Your task to perform on an android device: turn vacation reply on in the gmail app Image 0: 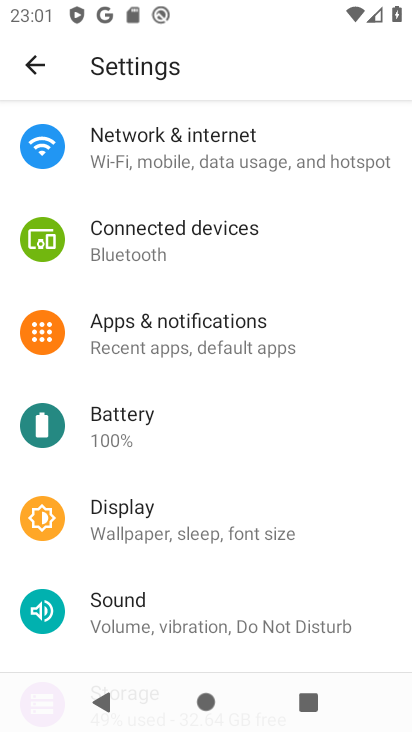
Step 0: press back button
Your task to perform on an android device: turn vacation reply on in the gmail app Image 1: 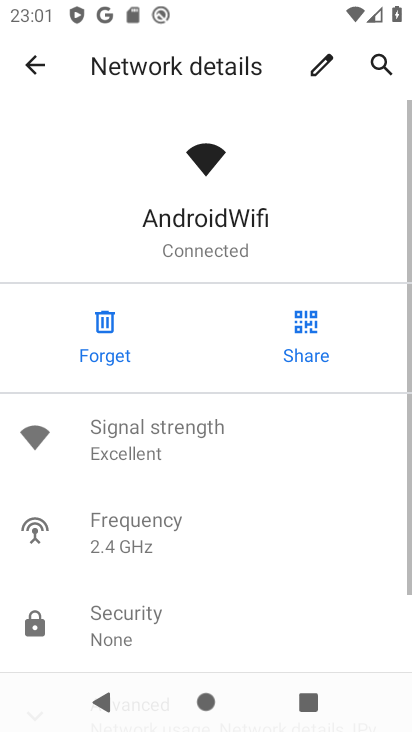
Step 1: press back button
Your task to perform on an android device: turn vacation reply on in the gmail app Image 2: 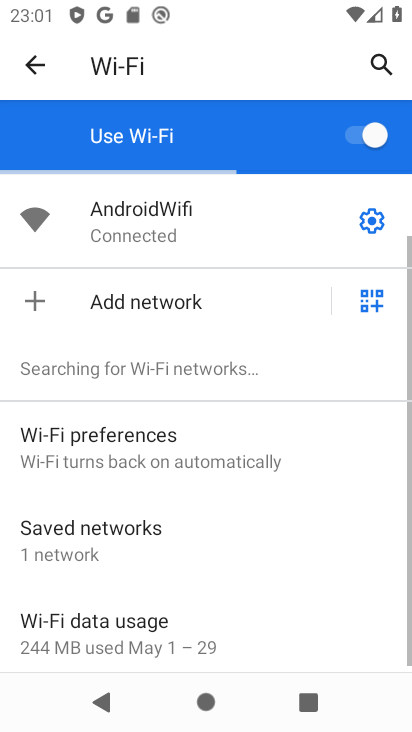
Step 2: press back button
Your task to perform on an android device: turn vacation reply on in the gmail app Image 3: 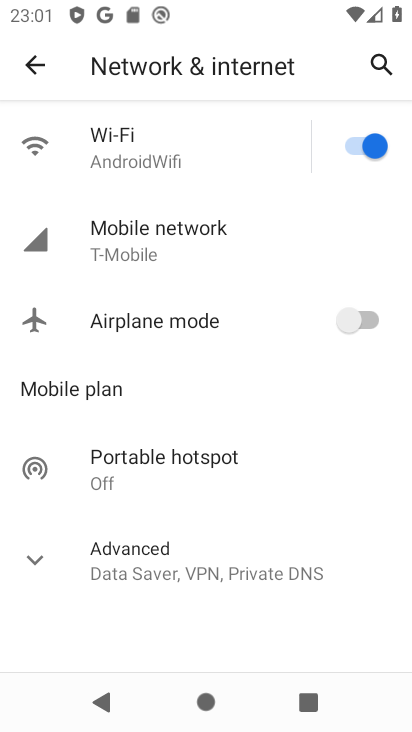
Step 3: press back button
Your task to perform on an android device: turn vacation reply on in the gmail app Image 4: 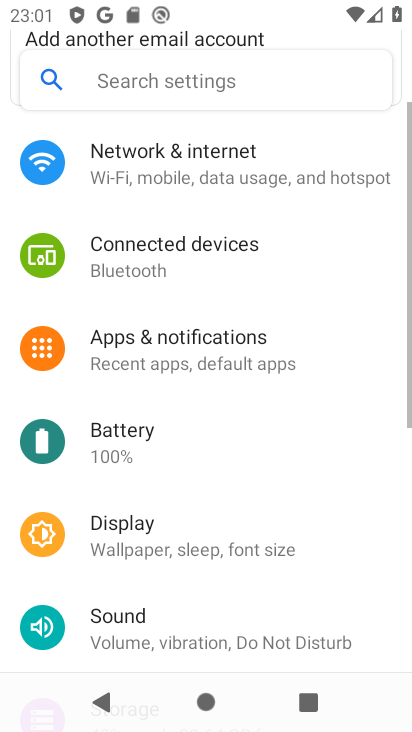
Step 4: press back button
Your task to perform on an android device: turn vacation reply on in the gmail app Image 5: 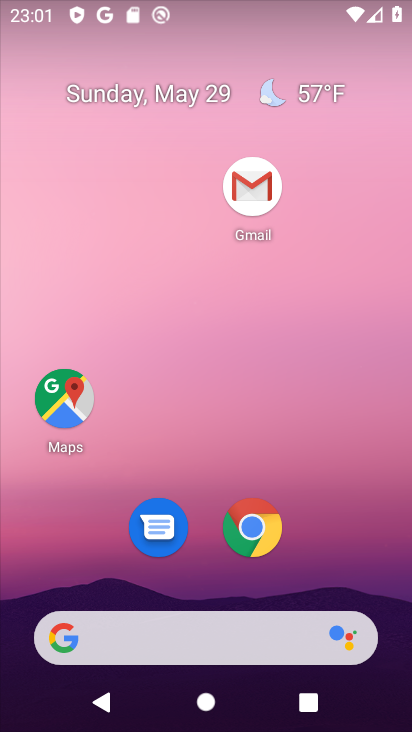
Step 5: click (253, 185)
Your task to perform on an android device: turn vacation reply on in the gmail app Image 6: 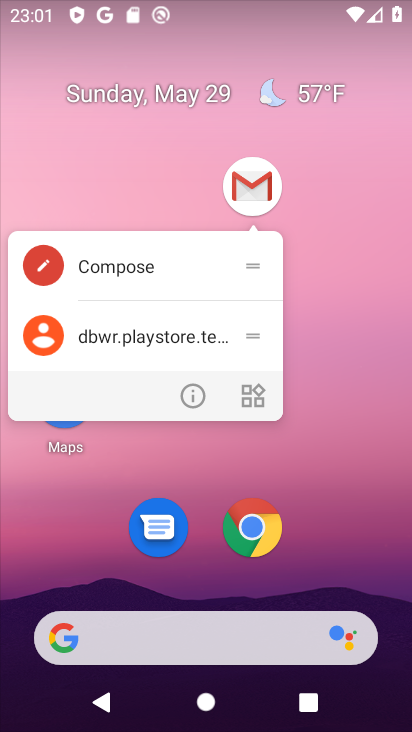
Step 6: click (253, 185)
Your task to perform on an android device: turn vacation reply on in the gmail app Image 7: 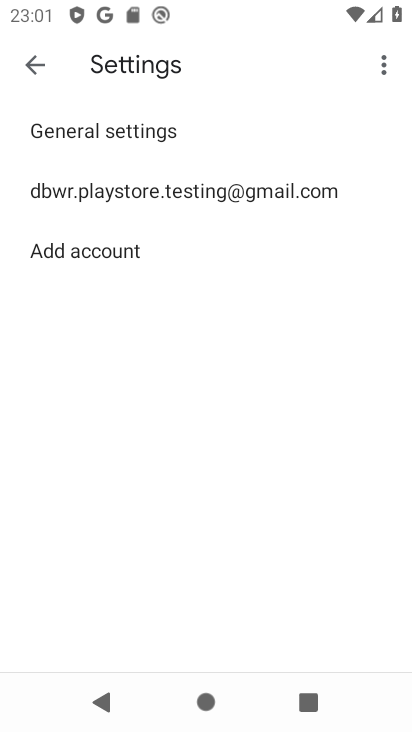
Step 7: click (157, 192)
Your task to perform on an android device: turn vacation reply on in the gmail app Image 8: 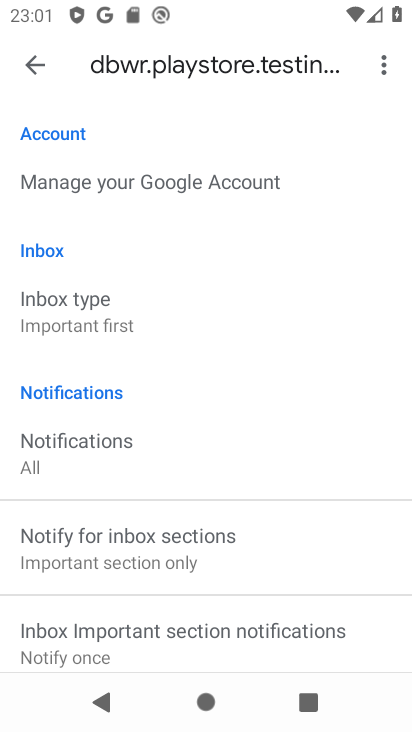
Step 8: drag from (191, 409) to (212, 372)
Your task to perform on an android device: turn vacation reply on in the gmail app Image 9: 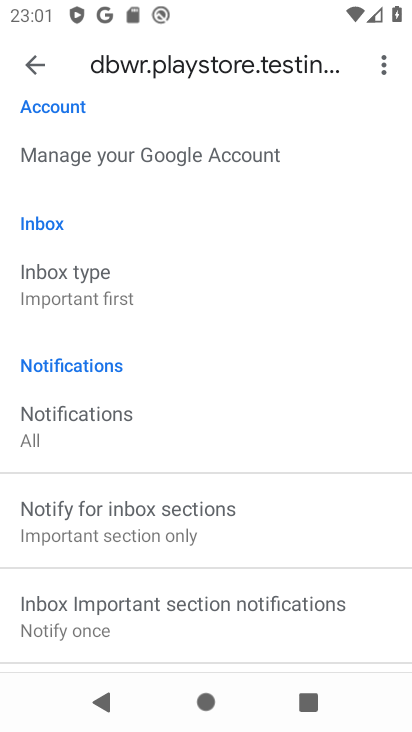
Step 9: drag from (112, 564) to (171, 311)
Your task to perform on an android device: turn vacation reply on in the gmail app Image 10: 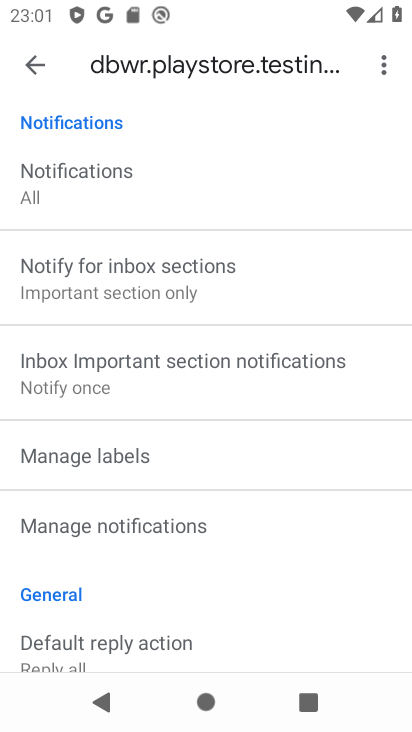
Step 10: drag from (147, 524) to (215, 335)
Your task to perform on an android device: turn vacation reply on in the gmail app Image 11: 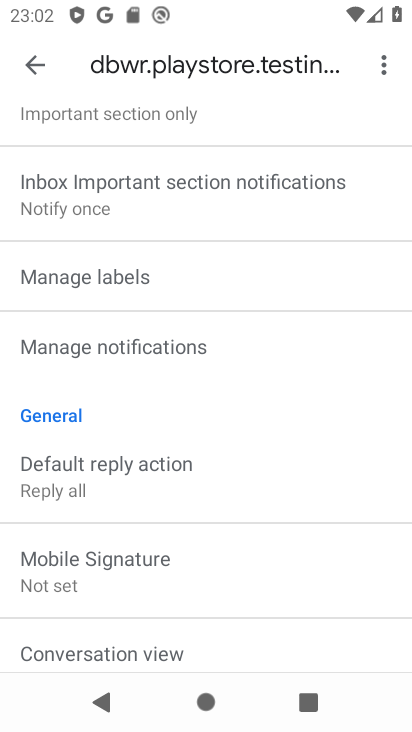
Step 11: drag from (118, 425) to (227, 235)
Your task to perform on an android device: turn vacation reply on in the gmail app Image 12: 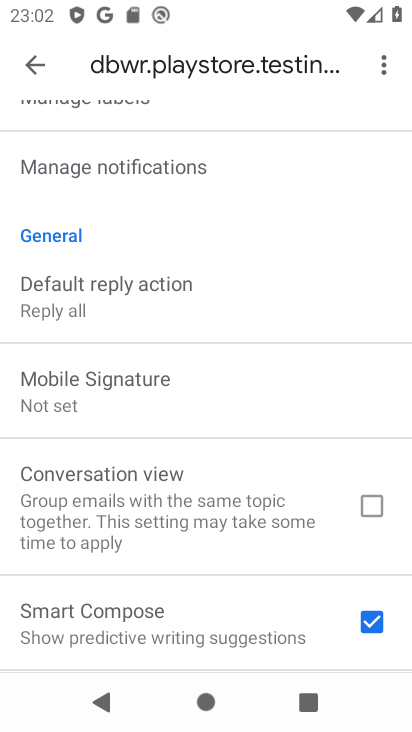
Step 12: drag from (156, 580) to (278, 257)
Your task to perform on an android device: turn vacation reply on in the gmail app Image 13: 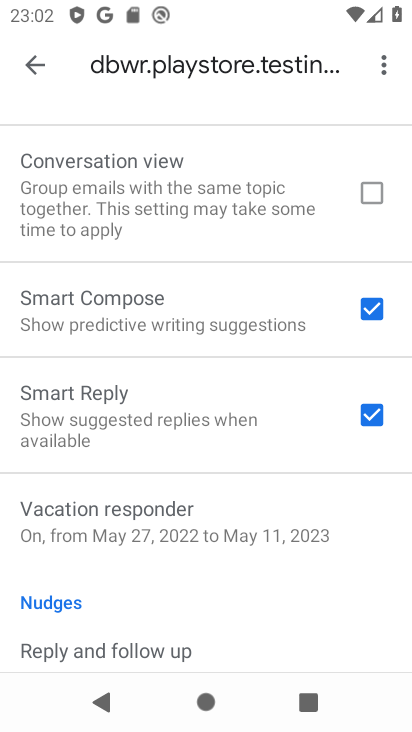
Step 13: click (138, 537)
Your task to perform on an android device: turn vacation reply on in the gmail app Image 14: 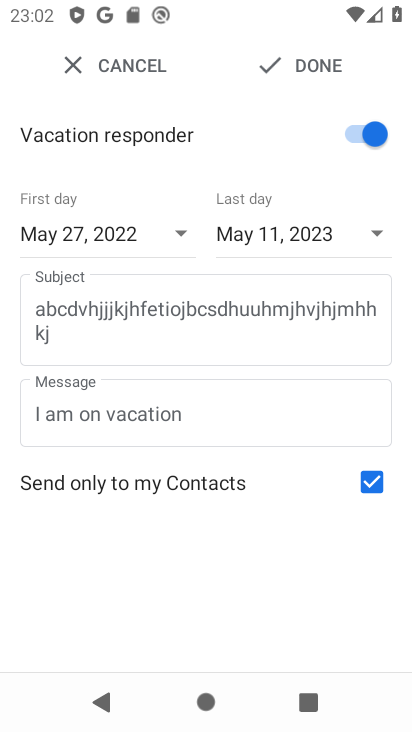
Step 14: task complete